Your task to perform on an android device: toggle location history Image 0: 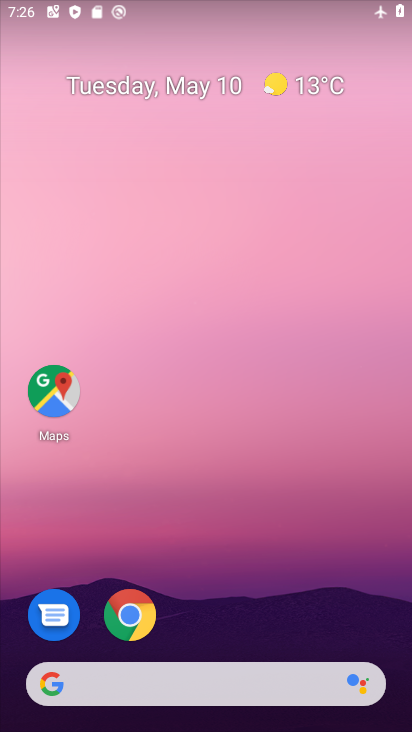
Step 0: drag from (214, 506) to (144, 217)
Your task to perform on an android device: toggle location history Image 1: 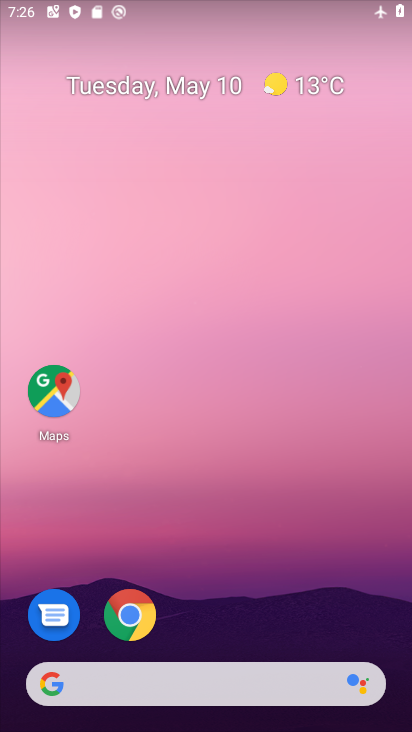
Step 1: click (47, 384)
Your task to perform on an android device: toggle location history Image 2: 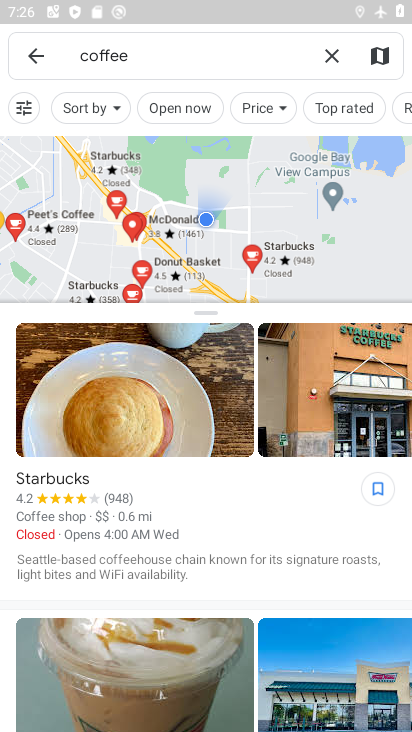
Step 2: click (326, 56)
Your task to perform on an android device: toggle location history Image 3: 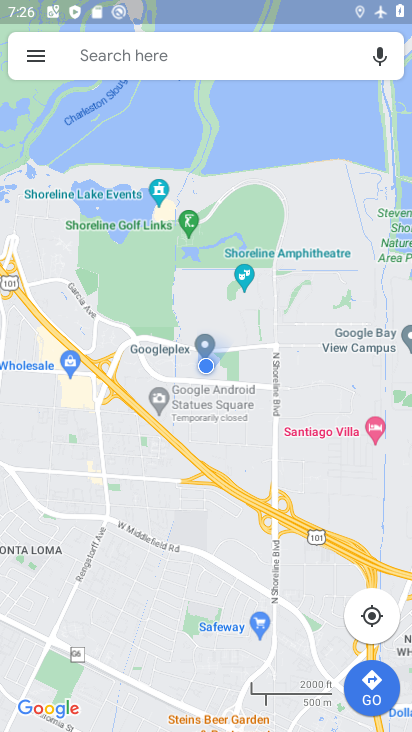
Step 3: click (30, 53)
Your task to perform on an android device: toggle location history Image 4: 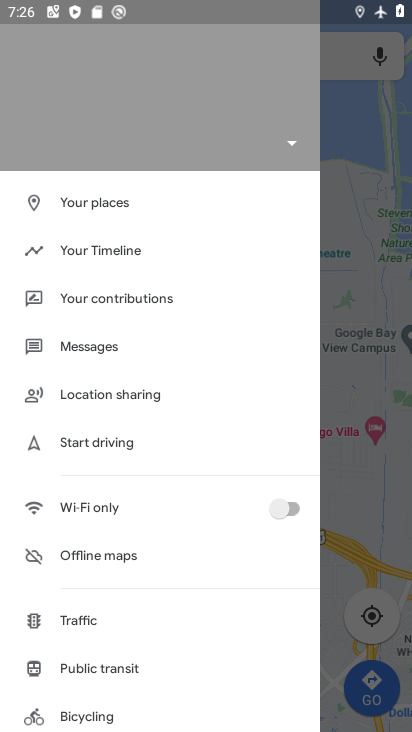
Step 4: click (112, 249)
Your task to perform on an android device: toggle location history Image 5: 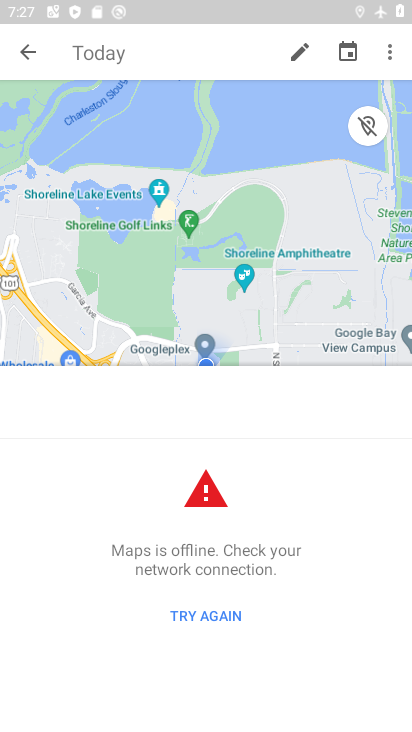
Step 5: click (391, 51)
Your task to perform on an android device: toggle location history Image 6: 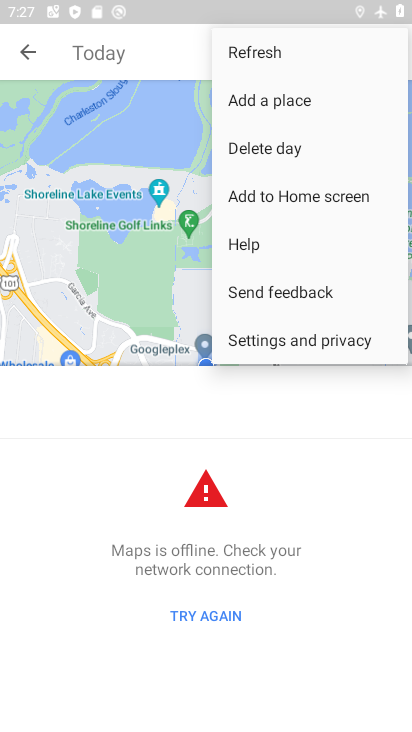
Step 6: click (272, 342)
Your task to perform on an android device: toggle location history Image 7: 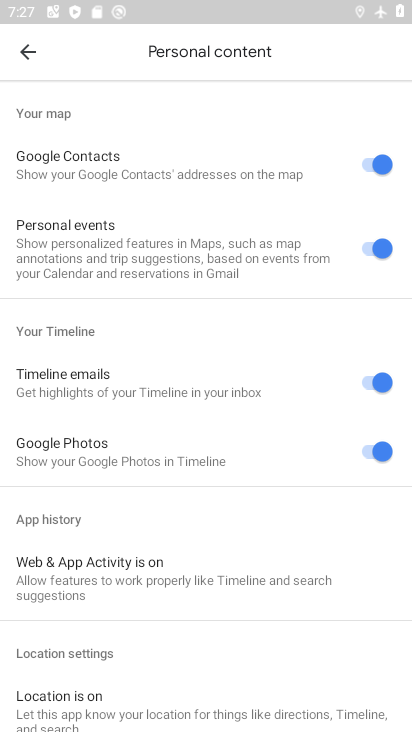
Step 7: drag from (195, 610) to (130, 328)
Your task to perform on an android device: toggle location history Image 8: 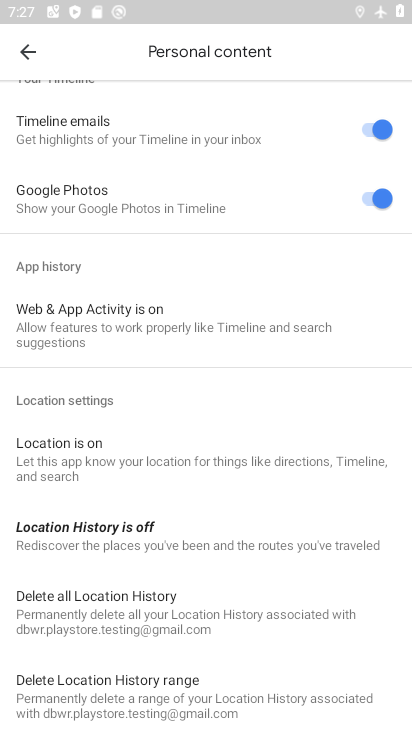
Step 8: click (93, 523)
Your task to perform on an android device: toggle location history Image 9: 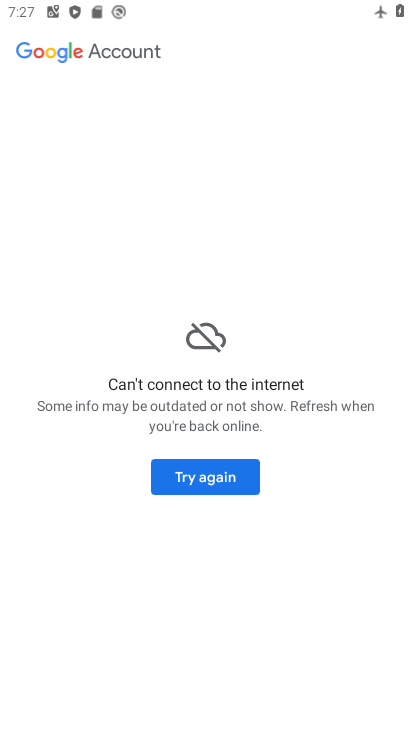
Step 9: task complete